Your task to perform on an android device: change text size in settings app Image 0: 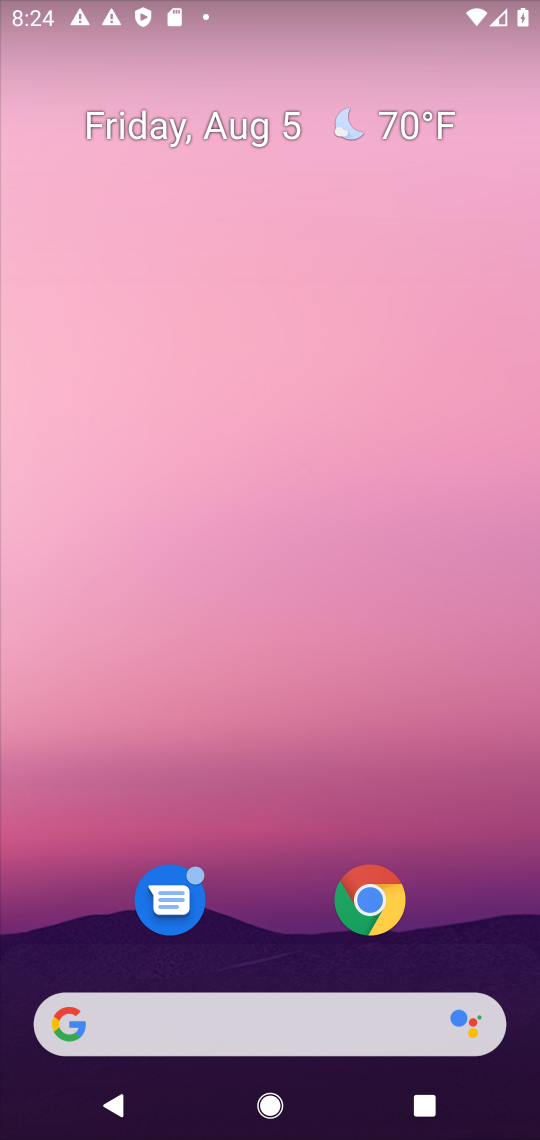
Step 0: drag from (246, 927) to (205, 25)
Your task to perform on an android device: change text size in settings app Image 1: 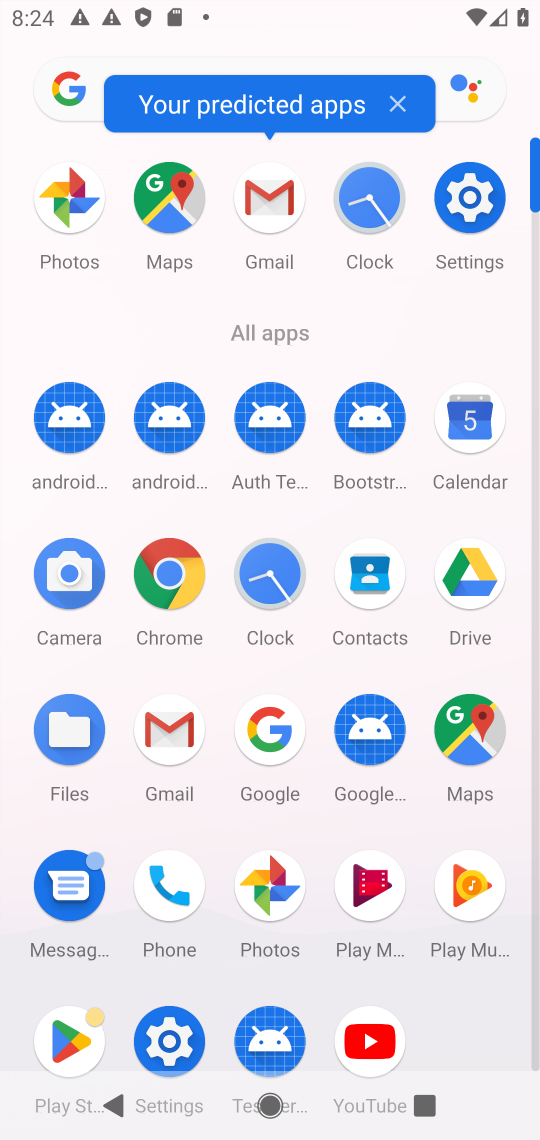
Step 1: click (160, 1037)
Your task to perform on an android device: change text size in settings app Image 2: 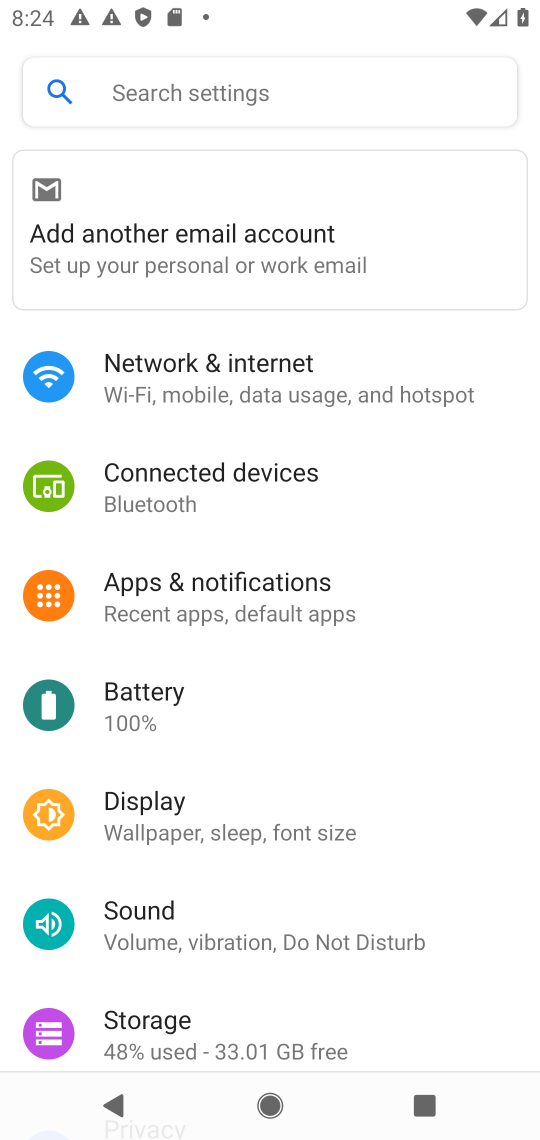
Step 2: drag from (257, 1006) to (331, 358)
Your task to perform on an android device: change text size in settings app Image 3: 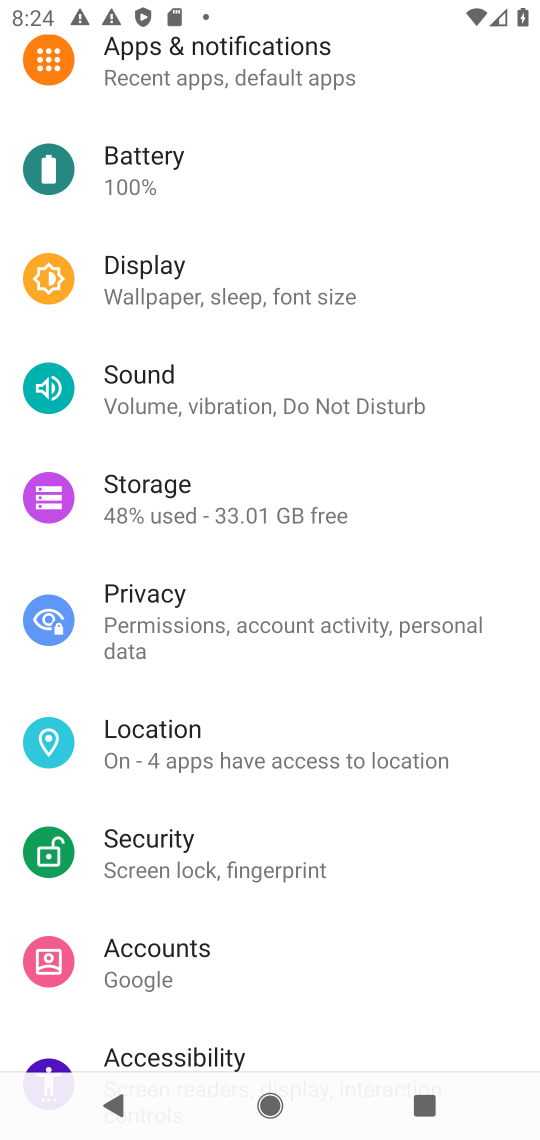
Step 3: click (235, 282)
Your task to perform on an android device: change text size in settings app Image 4: 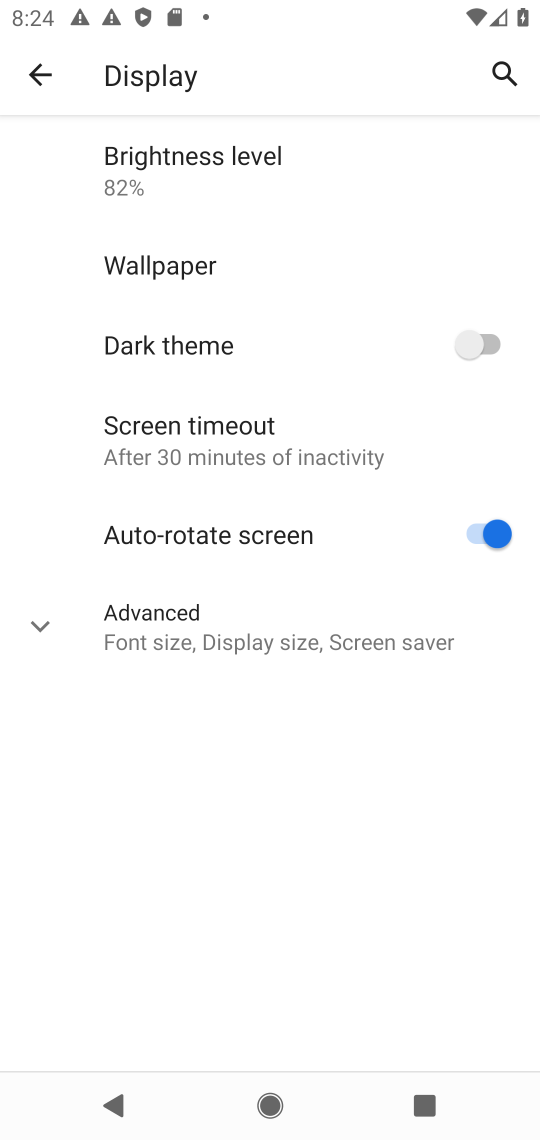
Step 4: click (179, 600)
Your task to perform on an android device: change text size in settings app Image 5: 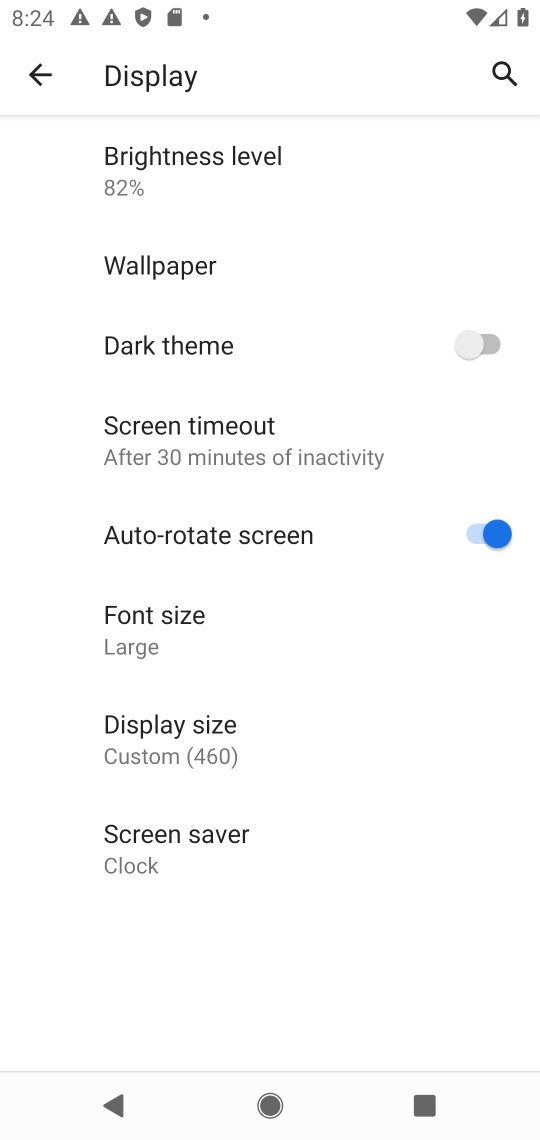
Step 5: click (151, 617)
Your task to perform on an android device: change text size in settings app Image 6: 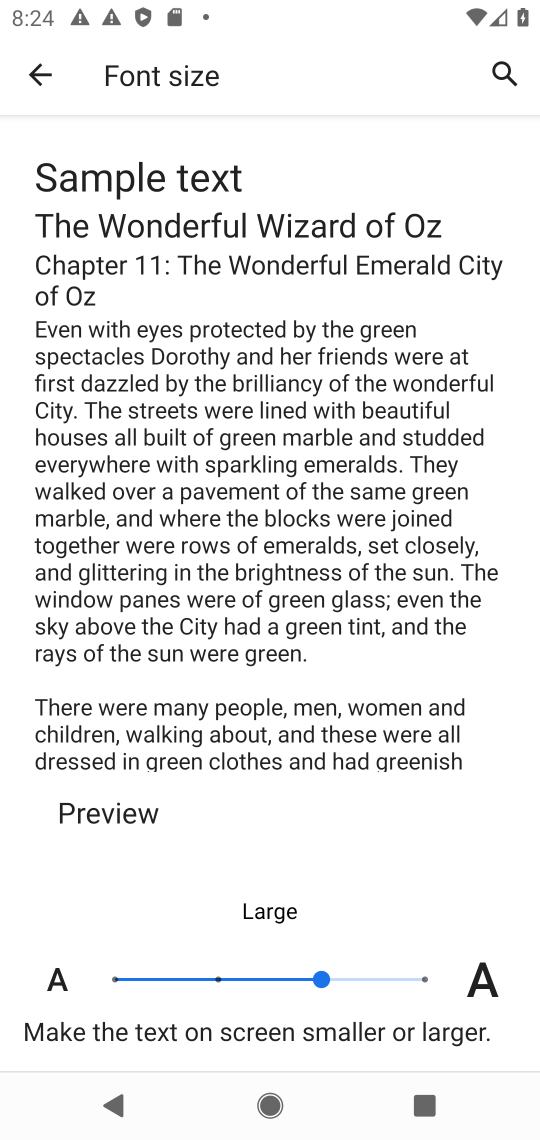
Step 6: click (191, 973)
Your task to perform on an android device: change text size in settings app Image 7: 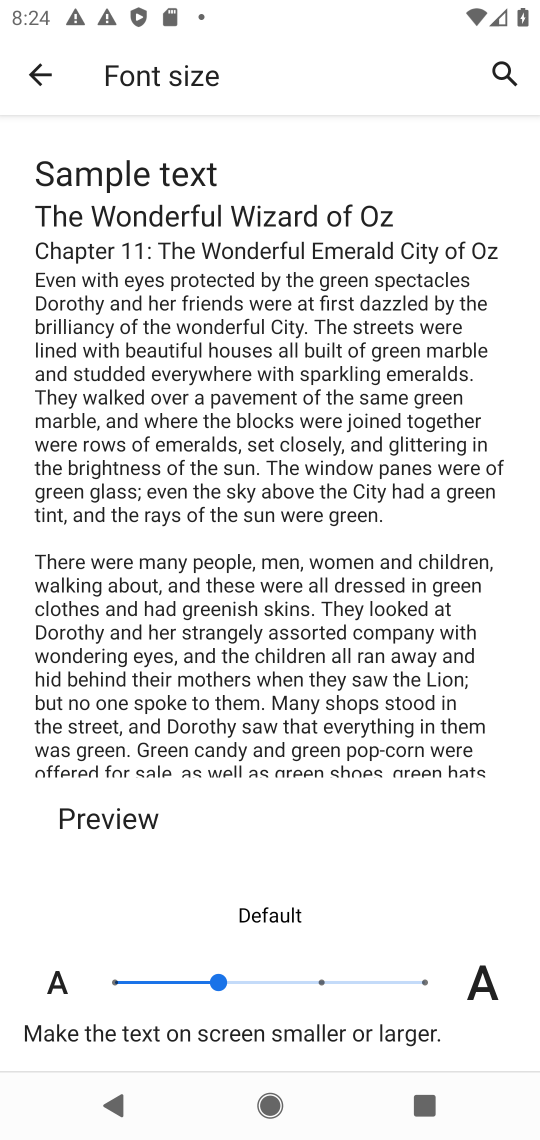
Step 7: task complete